Your task to perform on an android device: Show the shopping cart on bestbuy. Search for usb-c on bestbuy, select the first entry, and add it to the cart. Image 0: 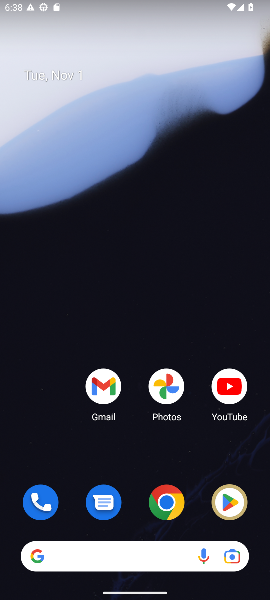
Step 0: click (109, 553)
Your task to perform on an android device: Show the shopping cart on bestbuy. Search for usb-c on bestbuy, select the first entry, and add it to the cart. Image 1: 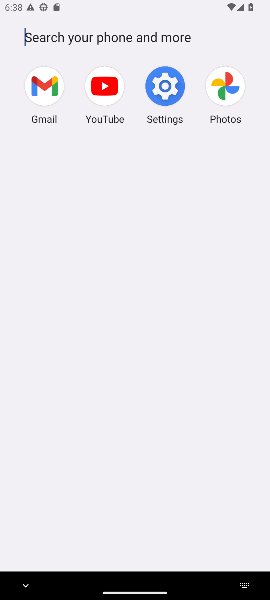
Step 1: type "google"
Your task to perform on an android device: Show the shopping cart on bestbuy. Search for usb-c on bestbuy, select the first entry, and add it to the cart. Image 2: 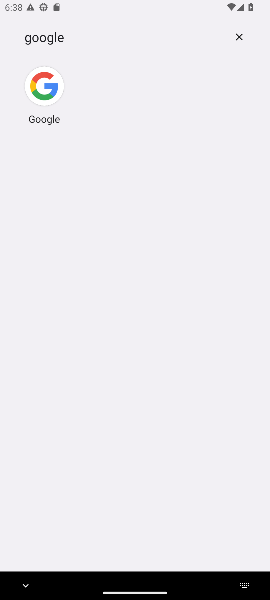
Step 2: click (43, 93)
Your task to perform on an android device: Show the shopping cart on bestbuy. Search for usb-c on bestbuy, select the first entry, and add it to the cart. Image 3: 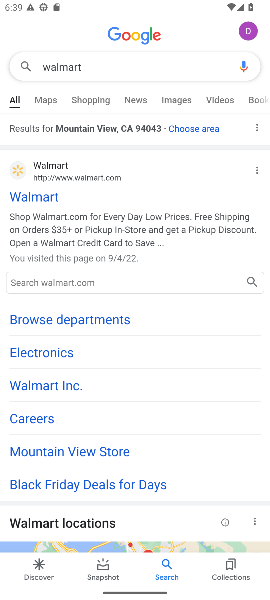
Step 3: click (130, 63)
Your task to perform on an android device: Show the shopping cart on bestbuy. Search for usb-c on bestbuy, select the first entry, and add it to the cart. Image 4: 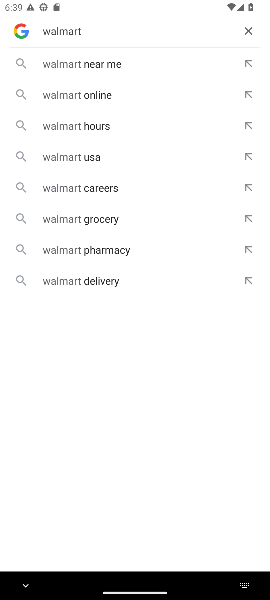
Step 4: click (246, 34)
Your task to perform on an android device: Show the shopping cart on bestbuy. Search for usb-c on bestbuy, select the first entry, and add it to the cart. Image 5: 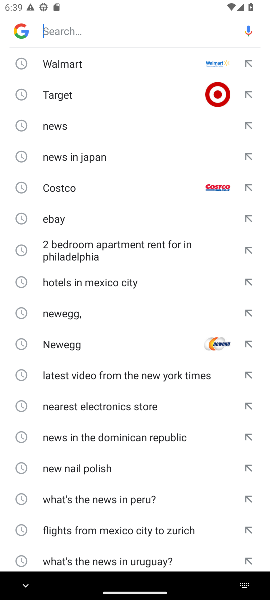
Step 5: type "bestbuy"
Your task to perform on an android device: Show the shopping cart on bestbuy. Search for usb-c on bestbuy, select the first entry, and add it to the cart. Image 6: 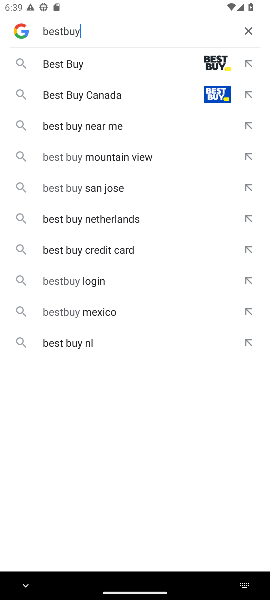
Step 6: click (66, 60)
Your task to perform on an android device: Show the shopping cart on bestbuy. Search for usb-c on bestbuy, select the first entry, and add it to the cart. Image 7: 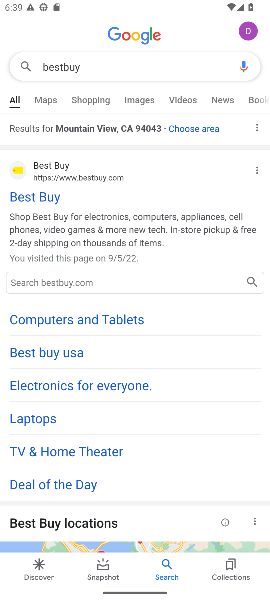
Step 7: click (30, 198)
Your task to perform on an android device: Show the shopping cart on bestbuy. Search for usb-c on bestbuy, select the first entry, and add it to the cart. Image 8: 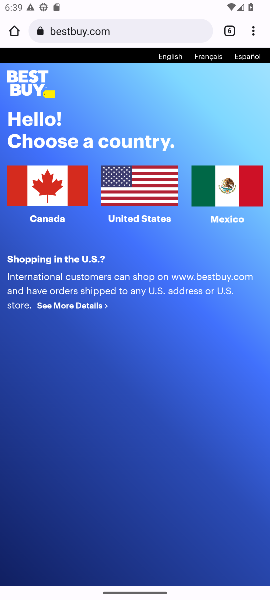
Step 8: click (143, 189)
Your task to perform on an android device: Show the shopping cart on bestbuy. Search for usb-c on bestbuy, select the first entry, and add it to the cart. Image 9: 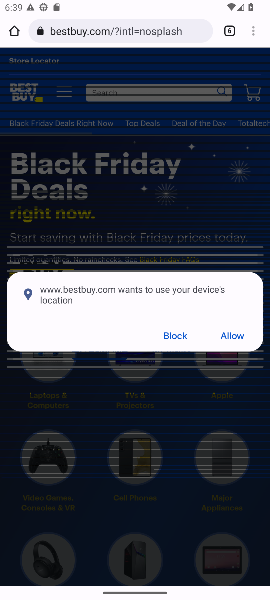
Step 9: click (227, 336)
Your task to perform on an android device: Show the shopping cart on bestbuy. Search for usb-c on bestbuy, select the first entry, and add it to the cart. Image 10: 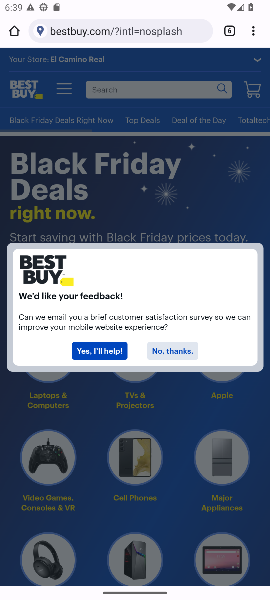
Step 10: click (95, 351)
Your task to perform on an android device: Show the shopping cart on bestbuy. Search for usb-c on bestbuy, select the first entry, and add it to the cart. Image 11: 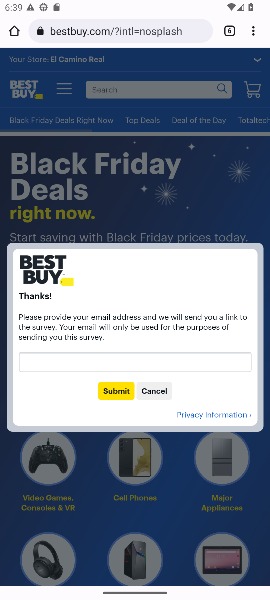
Step 11: click (188, 350)
Your task to perform on an android device: Show the shopping cart on bestbuy. Search for usb-c on bestbuy, select the first entry, and add it to the cart. Image 12: 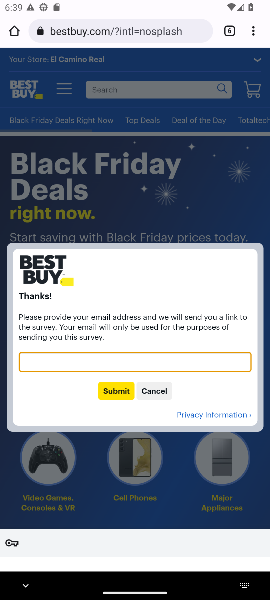
Step 12: click (152, 389)
Your task to perform on an android device: Show the shopping cart on bestbuy. Search for usb-c on bestbuy, select the first entry, and add it to the cart. Image 13: 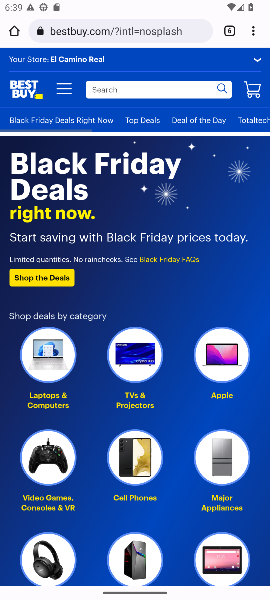
Step 13: click (156, 390)
Your task to perform on an android device: Show the shopping cart on bestbuy. Search for usb-c on bestbuy, select the first entry, and add it to the cart. Image 14: 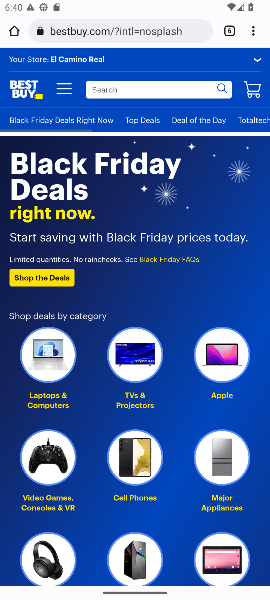
Step 14: click (147, 93)
Your task to perform on an android device: Show the shopping cart on bestbuy. Search for usb-c on bestbuy, select the first entry, and add it to the cart. Image 15: 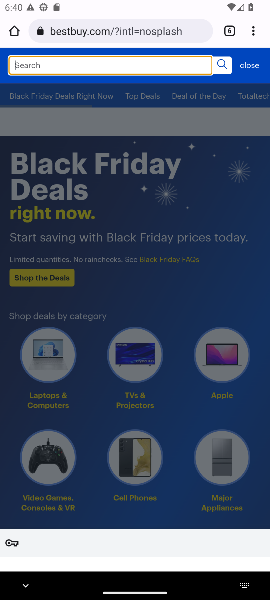
Step 15: type "usb-c"
Your task to perform on an android device: Show the shopping cart on bestbuy. Search for usb-c on bestbuy, select the first entry, and add it to the cart. Image 16: 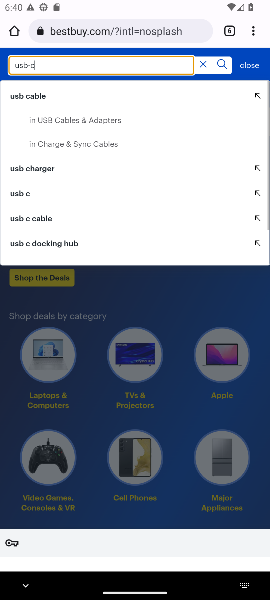
Step 16: click (18, 190)
Your task to perform on an android device: Show the shopping cart on bestbuy. Search for usb-c on bestbuy, select the first entry, and add it to the cart. Image 17: 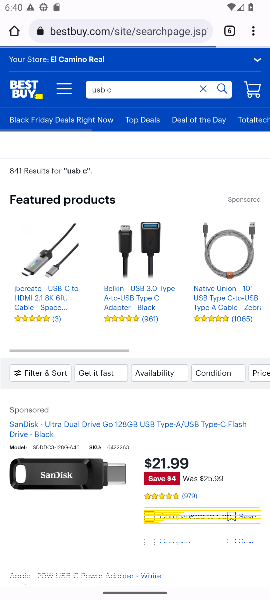
Step 17: drag from (185, 327) to (174, 191)
Your task to perform on an android device: Show the shopping cart on bestbuy. Search for usb-c on bestbuy, select the first entry, and add it to the cart. Image 18: 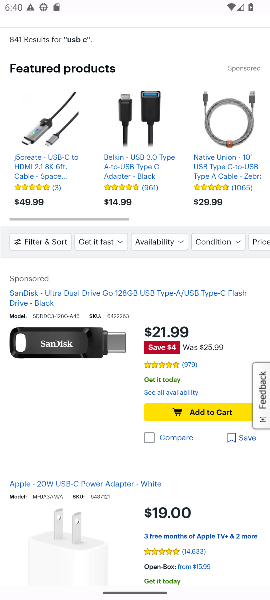
Step 18: click (201, 411)
Your task to perform on an android device: Show the shopping cart on bestbuy. Search for usb-c on bestbuy, select the first entry, and add it to the cart. Image 19: 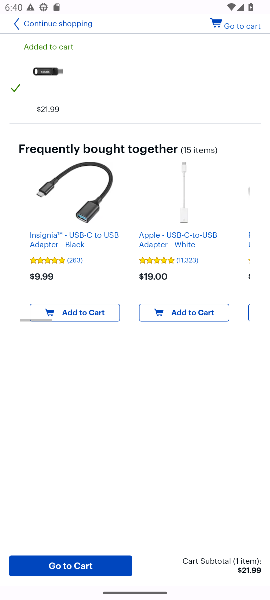
Step 19: task complete